Your task to perform on an android device: remove spam from my inbox in the gmail app Image 0: 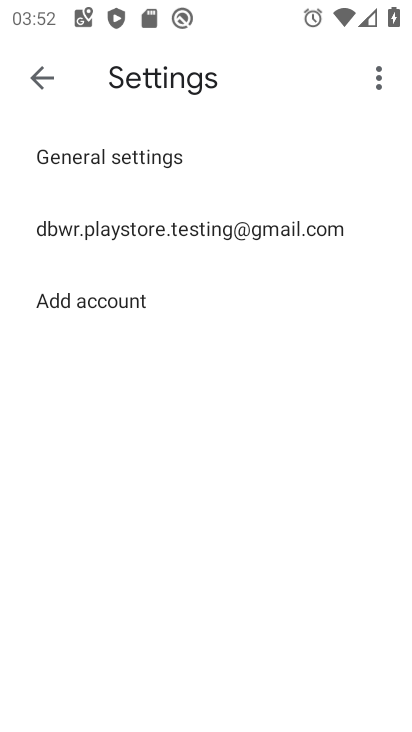
Step 0: press home button
Your task to perform on an android device: remove spam from my inbox in the gmail app Image 1: 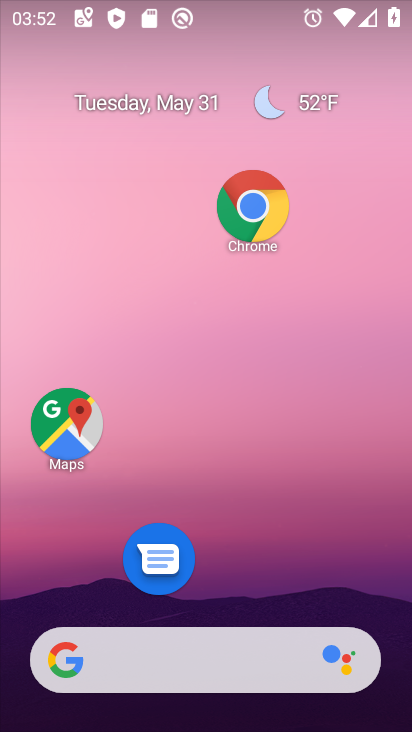
Step 1: drag from (219, 565) to (222, 141)
Your task to perform on an android device: remove spam from my inbox in the gmail app Image 2: 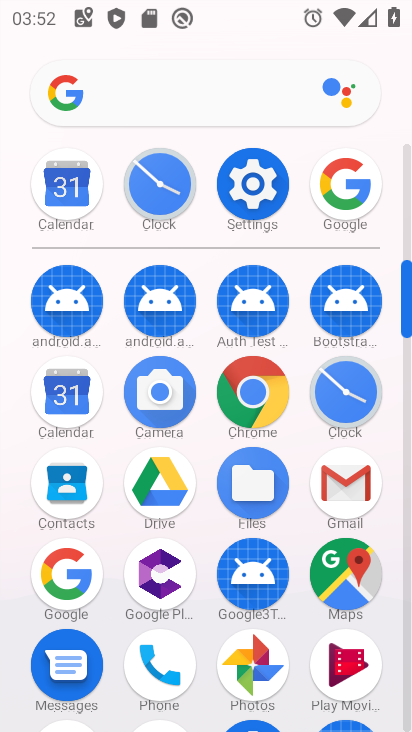
Step 2: click (331, 464)
Your task to perform on an android device: remove spam from my inbox in the gmail app Image 3: 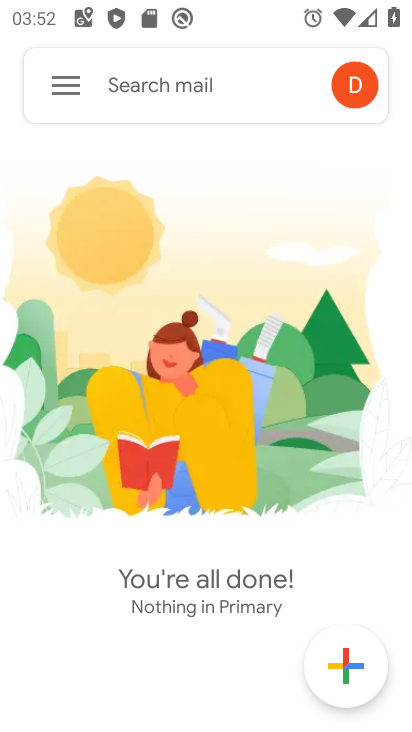
Step 3: click (59, 90)
Your task to perform on an android device: remove spam from my inbox in the gmail app Image 4: 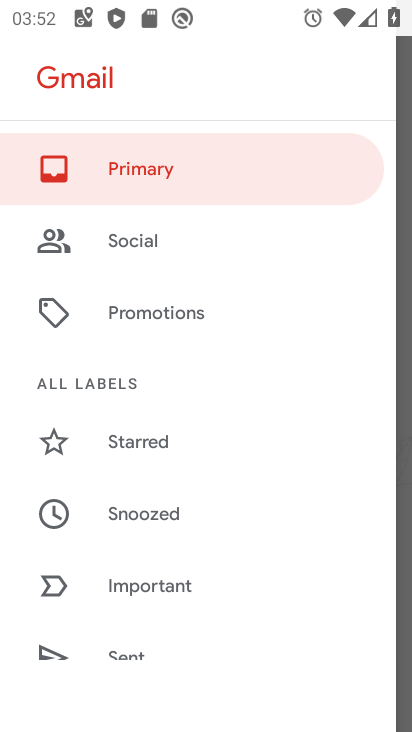
Step 4: drag from (178, 619) to (195, 345)
Your task to perform on an android device: remove spam from my inbox in the gmail app Image 5: 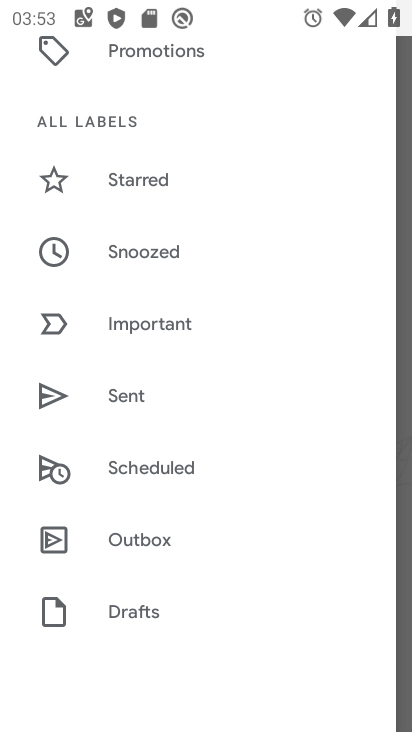
Step 5: drag from (175, 552) to (183, 322)
Your task to perform on an android device: remove spam from my inbox in the gmail app Image 6: 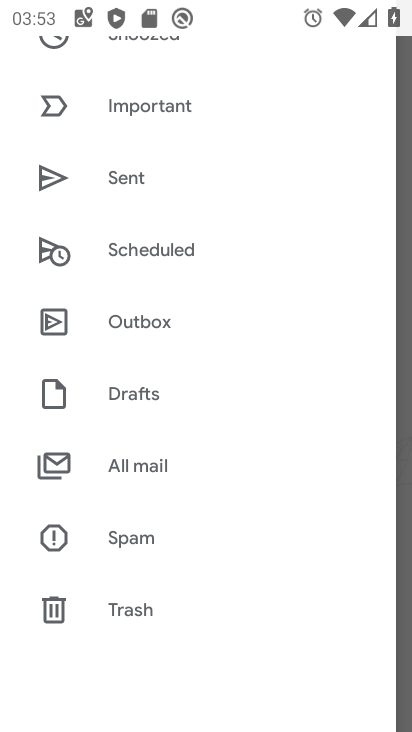
Step 6: click (152, 543)
Your task to perform on an android device: remove spam from my inbox in the gmail app Image 7: 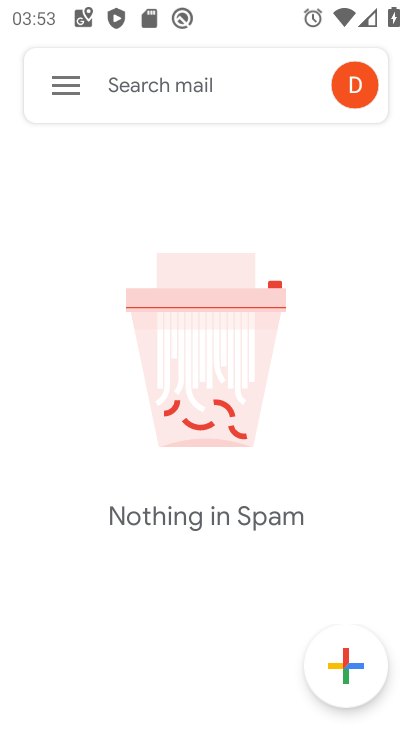
Step 7: task complete